Your task to perform on an android device: Open battery settings Image 0: 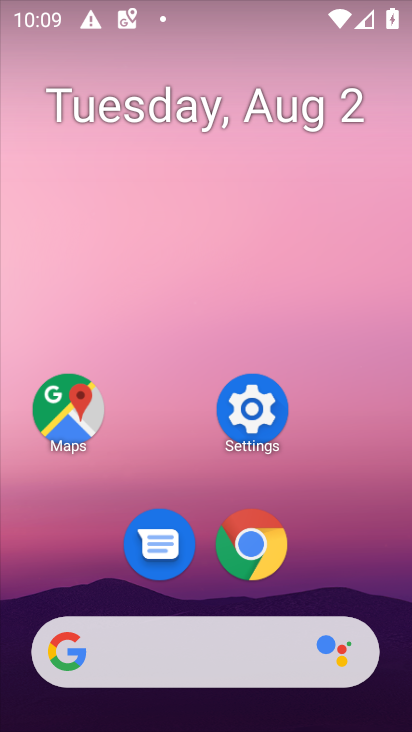
Step 0: click (257, 410)
Your task to perform on an android device: Open battery settings Image 1: 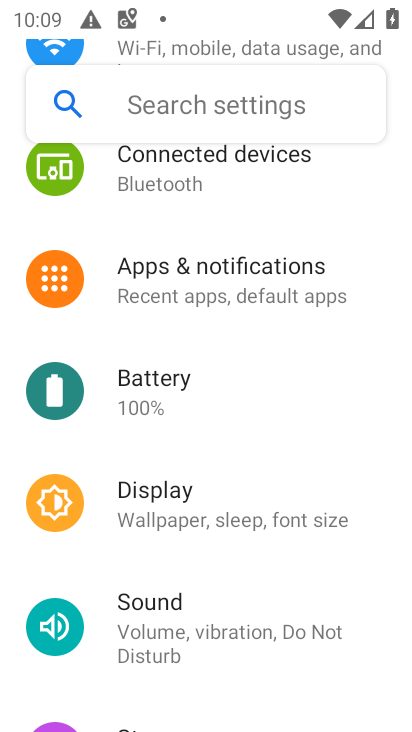
Step 1: click (146, 395)
Your task to perform on an android device: Open battery settings Image 2: 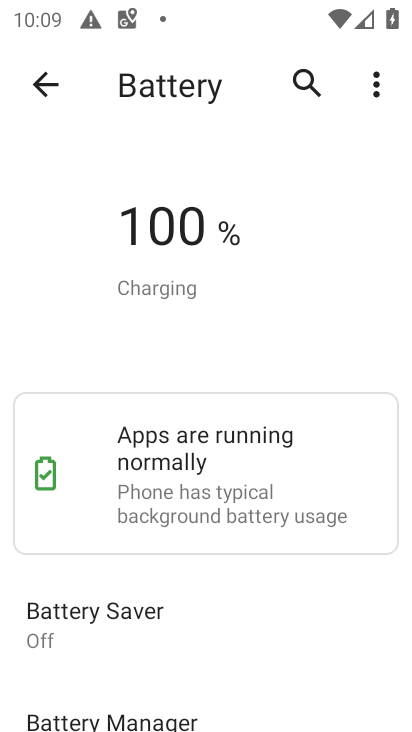
Step 2: task complete